Your task to perform on an android device: turn off smart reply in the gmail app Image 0: 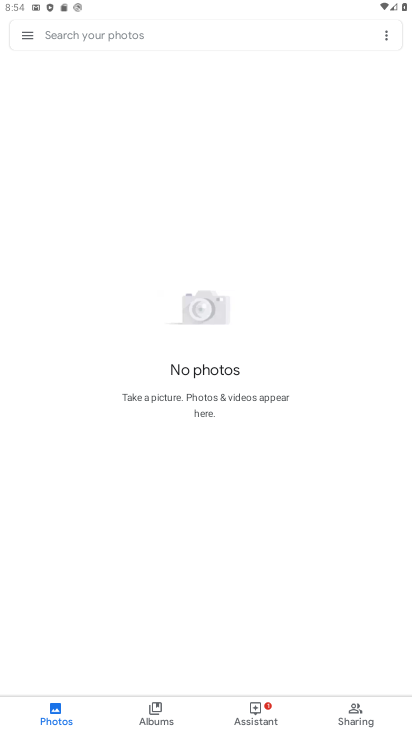
Step 0: press home button
Your task to perform on an android device: turn off smart reply in the gmail app Image 1: 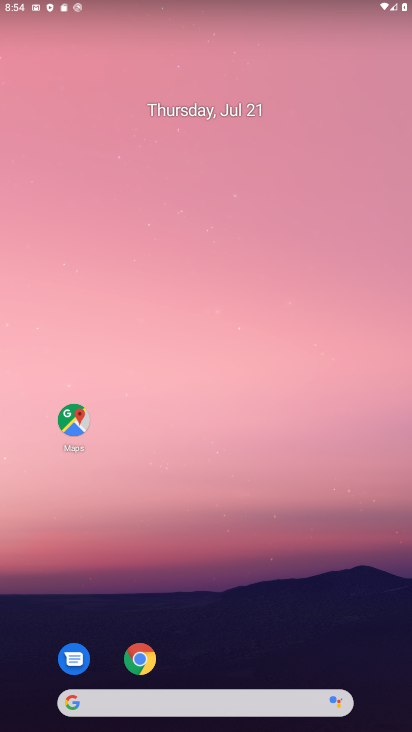
Step 1: drag from (183, 673) to (137, 23)
Your task to perform on an android device: turn off smart reply in the gmail app Image 2: 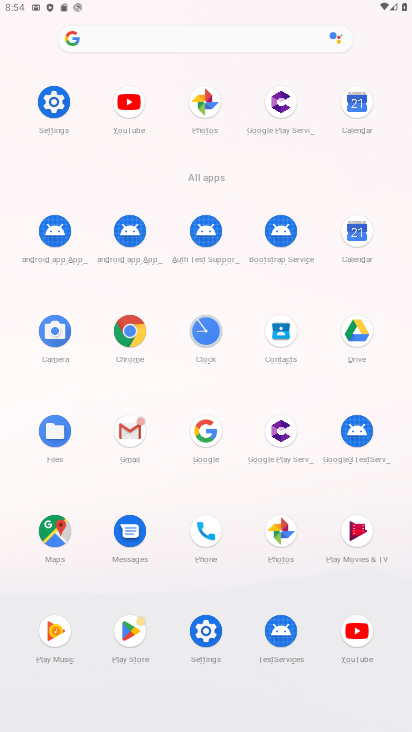
Step 2: click (131, 428)
Your task to perform on an android device: turn off smart reply in the gmail app Image 3: 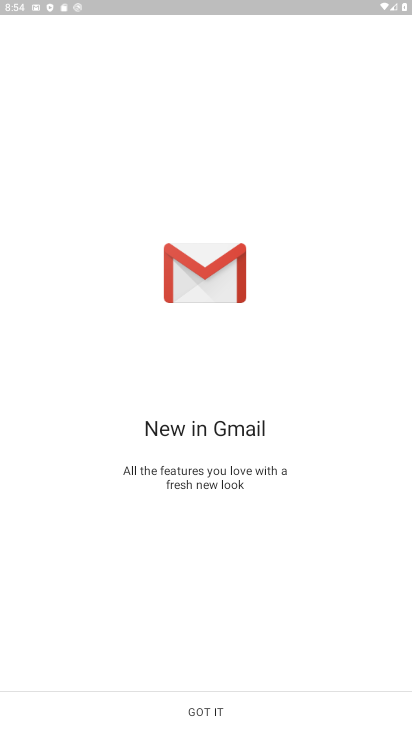
Step 3: click (171, 704)
Your task to perform on an android device: turn off smart reply in the gmail app Image 4: 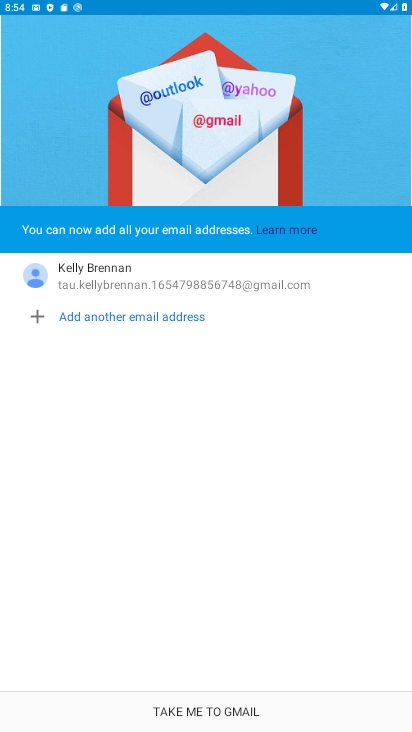
Step 4: click (170, 700)
Your task to perform on an android device: turn off smart reply in the gmail app Image 5: 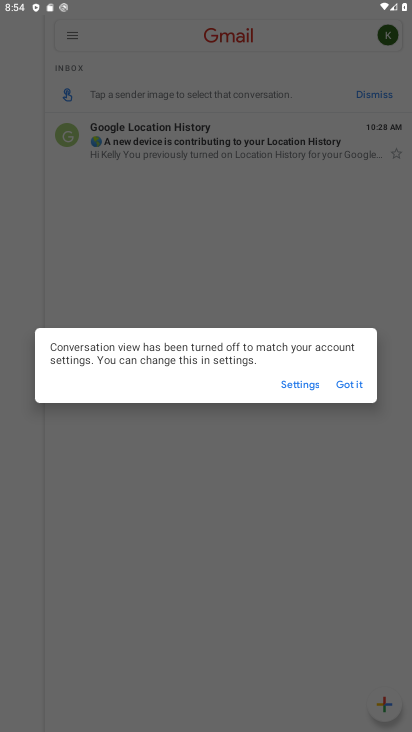
Step 5: click (354, 382)
Your task to perform on an android device: turn off smart reply in the gmail app Image 6: 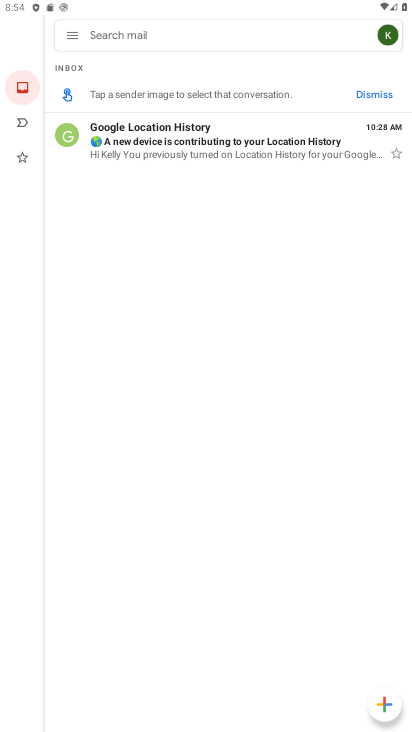
Step 6: drag from (72, 37) to (49, 319)
Your task to perform on an android device: turn off smart reply in the gmail app Image 7: 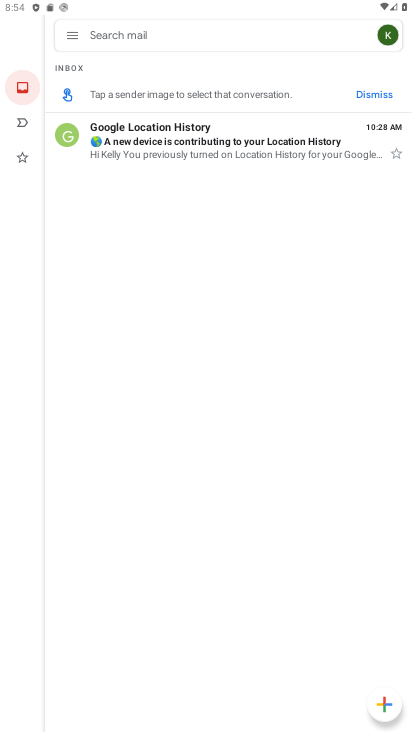
Step 7: click (74, 35)
Your task to perform on an android device: turn off smart reply in the gmail app Image 8: 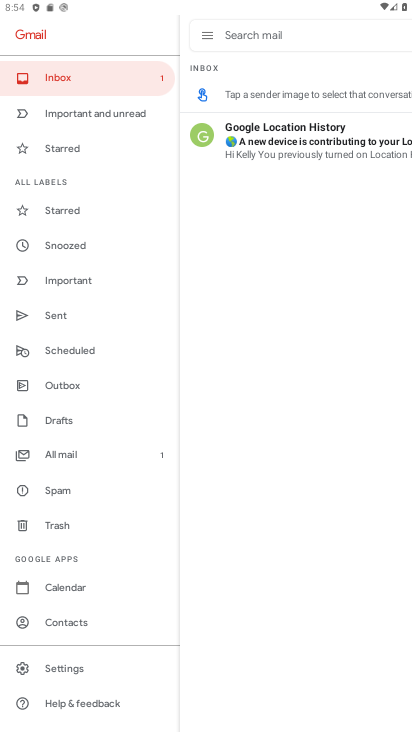
Step 8: click (62, 667)
Your task to perform on an android device: turn off smart reply in the gmail app Image 9: 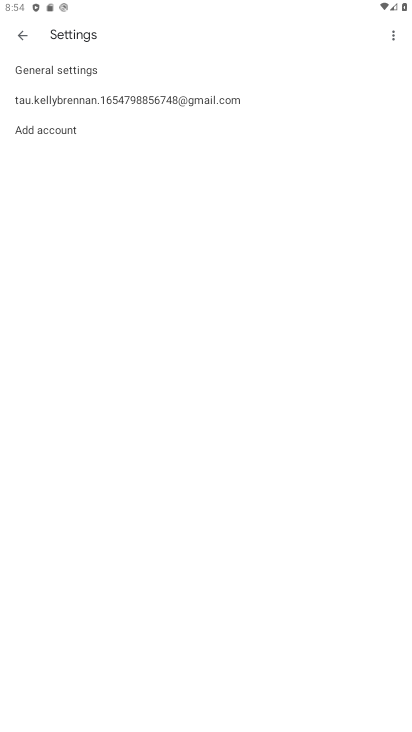
Step 9: click (101, 103)
Your task to perform on an android device: turn off smart reply in the gmail app Image 10: 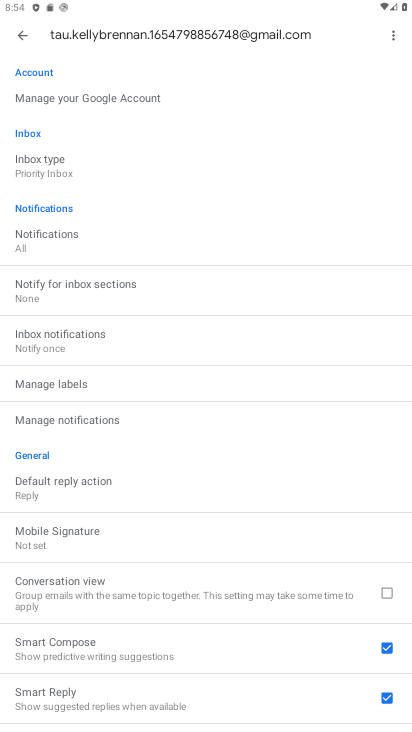
Step 10: click (381, 705)
Your task to perform on an android device: turn off smart reply in the gmail app Image 11: 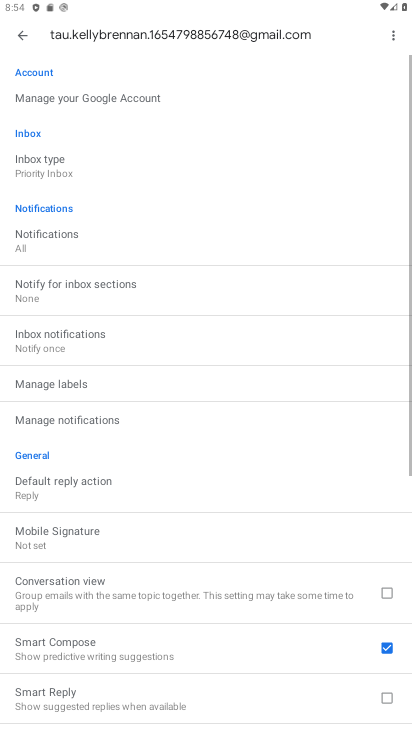
Step 11: task complete